Your task to perform on an android device: set an alarm Image 0: 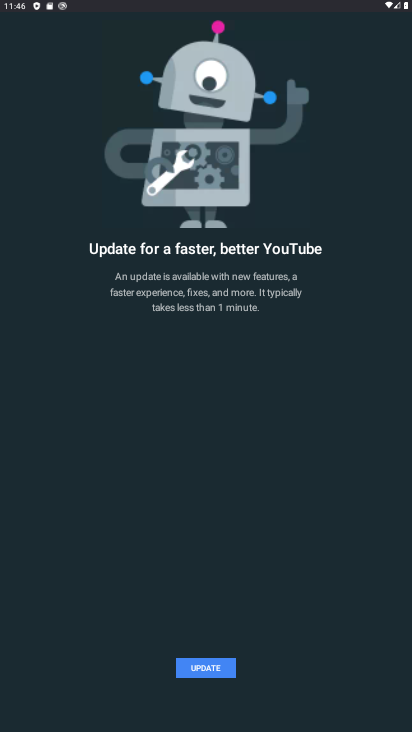
Step 0: click (208, 397)
Your task to perform on an android device: set an alarm Image 1: 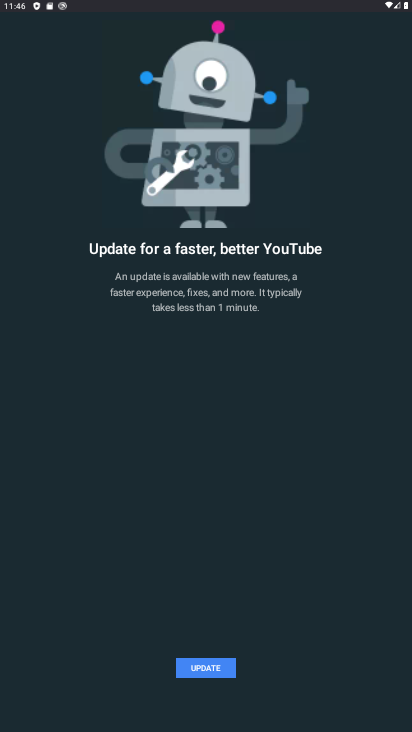
Step 1: press home button
Your task to perform on an android device: set an alarm Image 2: 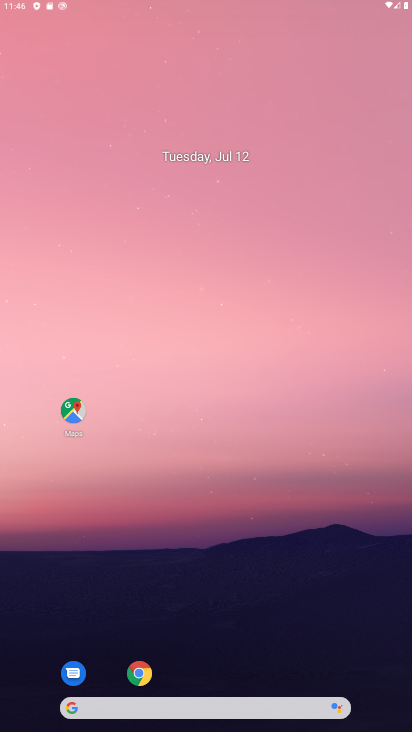
Step 2: drag from (200, 518) to (231, 208)
Your task to perform on an android device: set an alarm Image 3: 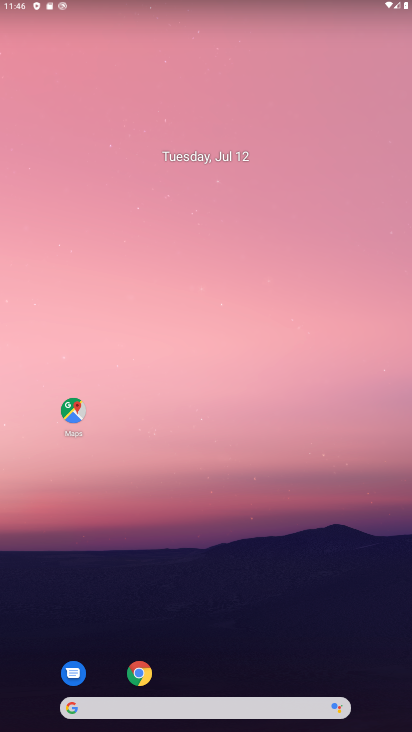
Step 3: drag from (177, 652) to (192, 11)
Your task to perform on an android device: set an alarm Image 4: 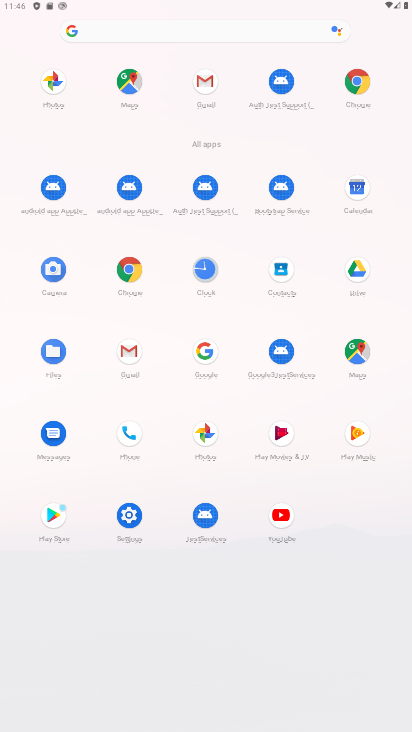
Step 4: click (202, 266)
Your task to perform on an android device: set an alarm Image 5: 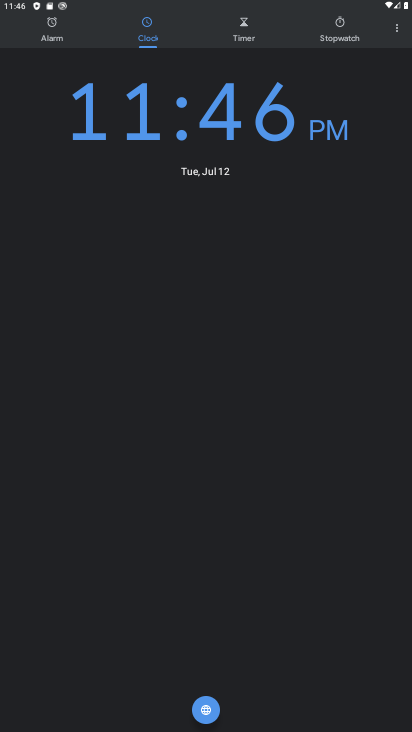
Step 5: click (45, 38)
Your task to perform on an android device: set an alarm Image 6: 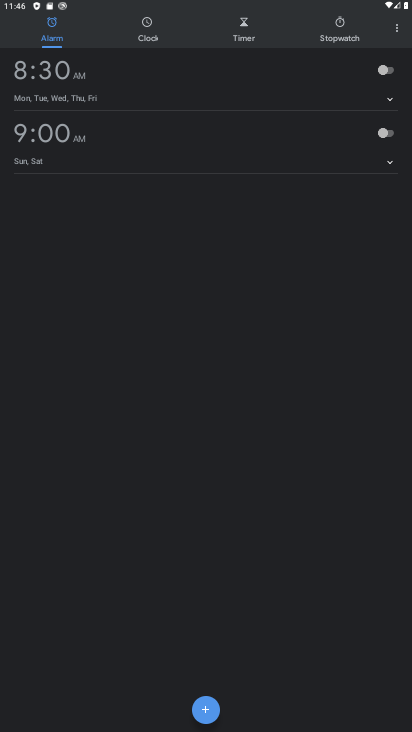
Step 6: click (383, 70)
Your task to perform on an android device: set an alarm Image 7: 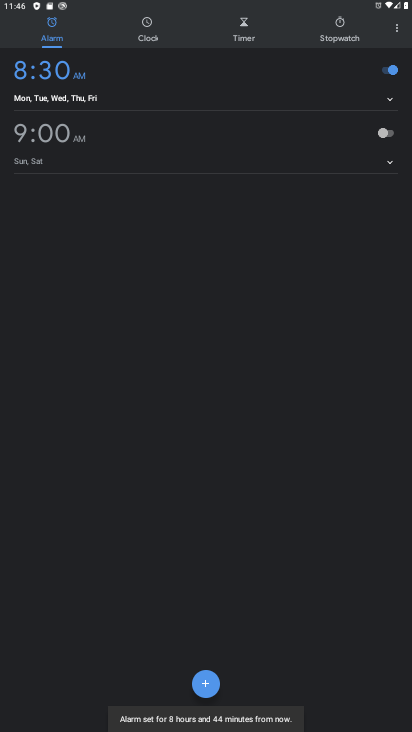
Step 7: task complete